Your task to perform on an android device: Do I have any events this weekend? Image 0: 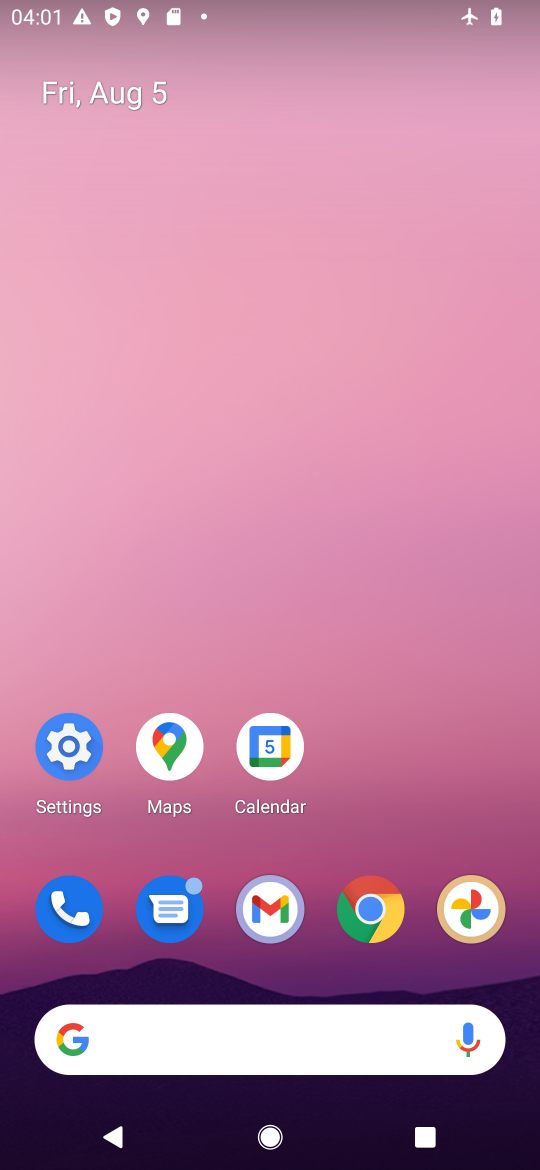
Step 0: click (272, 745)
Your task to perform on an android device: Do I have any events this weekend? Image 1: 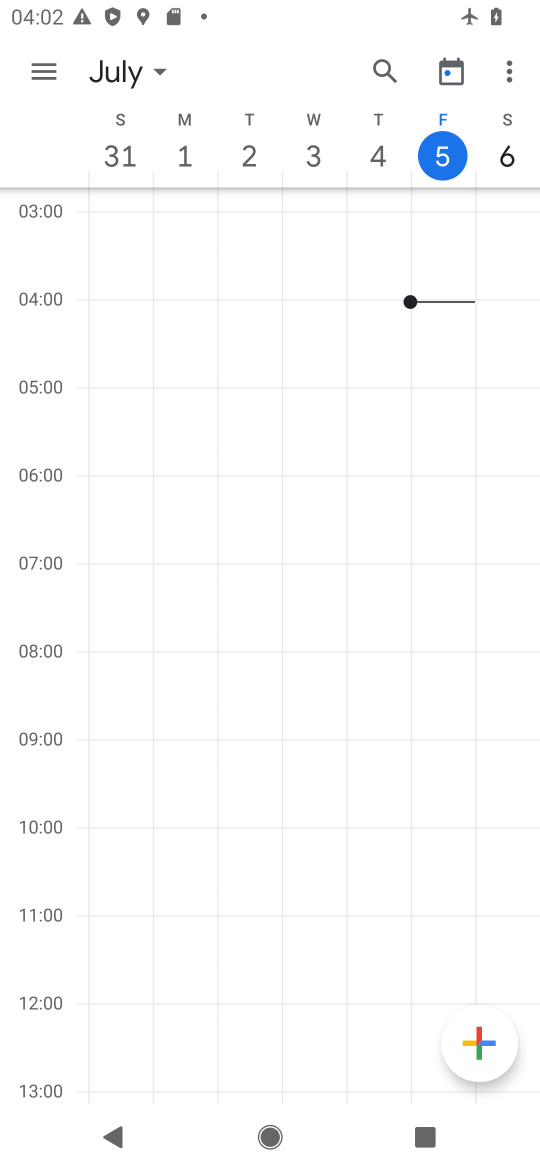
Step 1: task complete